Your task to perform on an android device: Go to calendar. Show me events next week Image 0: 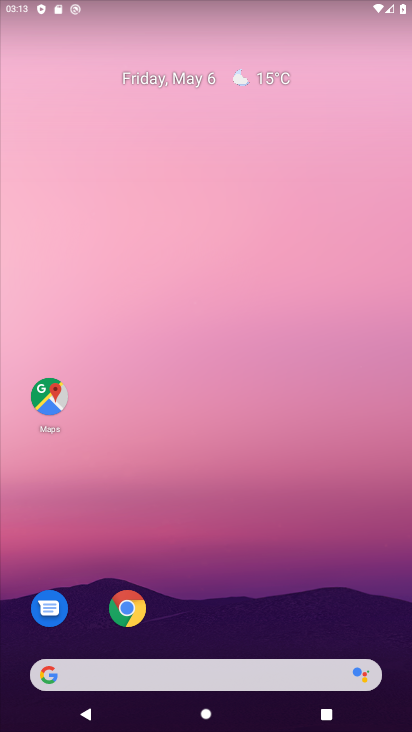
Step 0: drag from (256, 673) to (246, 259)
Your task to perform on an android device: Go to calendar. Show me events next week Image 1: 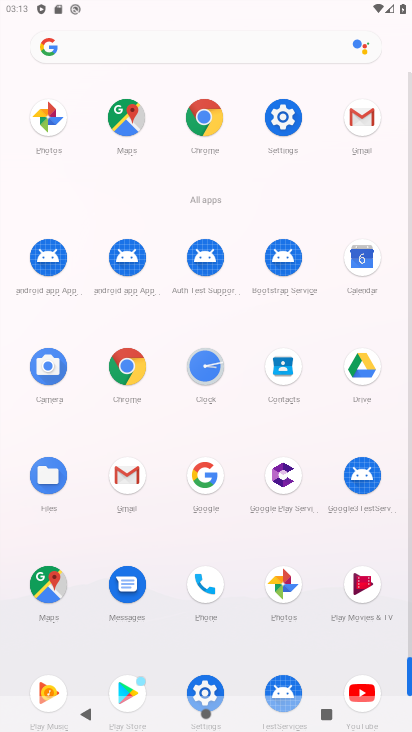
Step 1: click (362, 254)
Your task to perform on an android device: Go to calendar. Show me events next week Image 2: 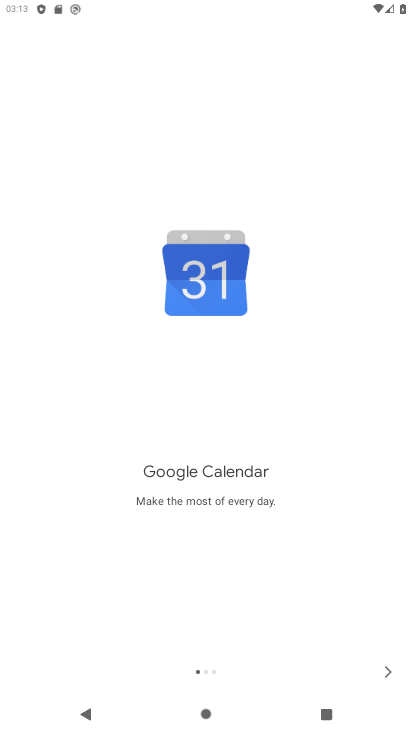
Step 2: click (385, 670)
Your task to perform on an android device: Go to calendar. Show me events next week Image 3: 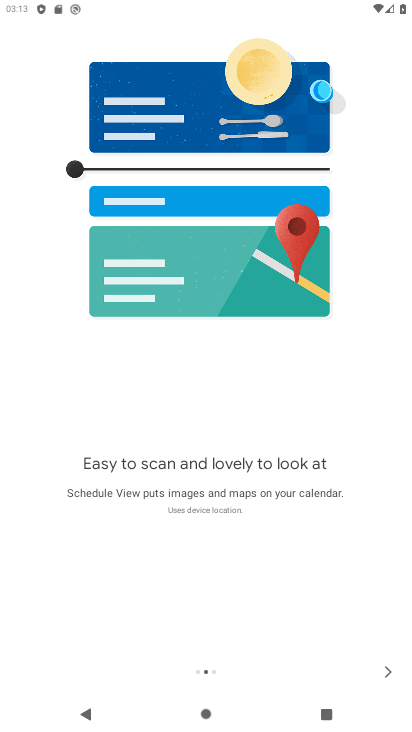
Step 3: click (385, 670)
Your task to perform on an android device: Go to calendar. Show me events next week Image 4: 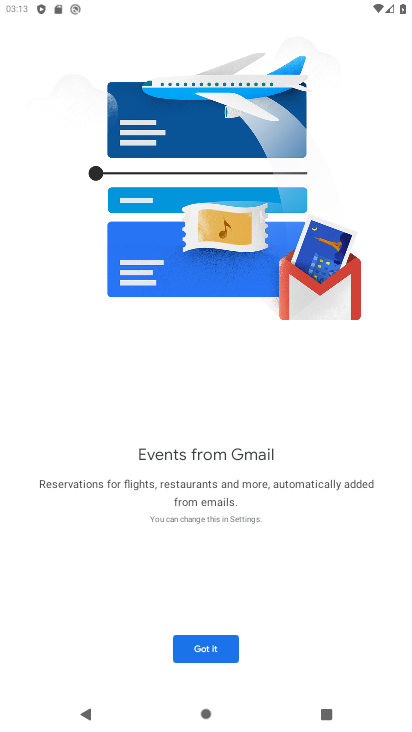
Step 4: click (211, 652)
Your task to perform on an android device: Go to calendar. Show me events next week Image 5: 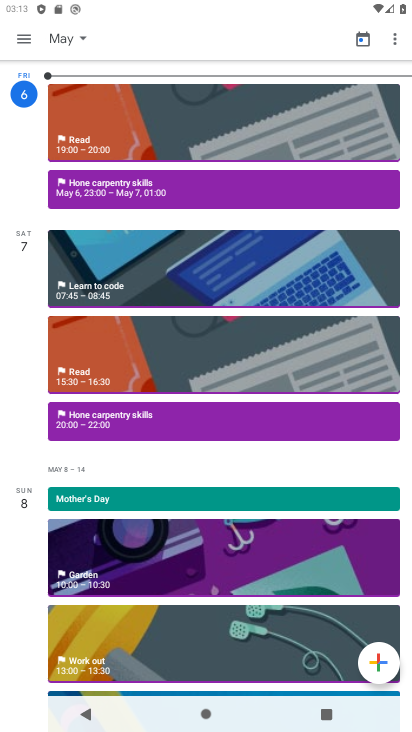
Step 5: click (24, 40)
Your task to perform on an android device: Go to calendar. Show me events next week Image 6: 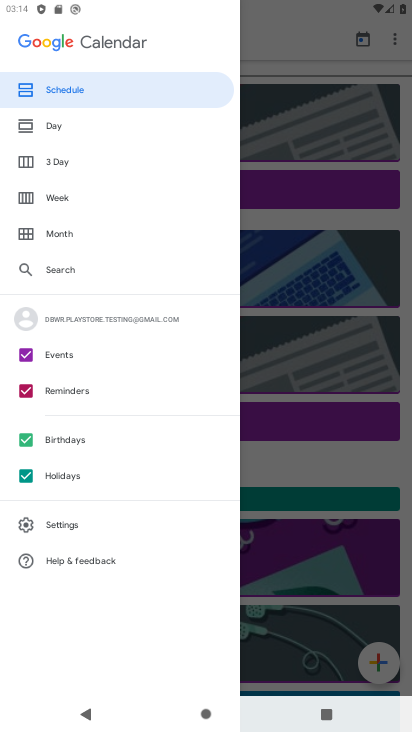
Step 6: click (83, 197)
Your task to perform on an android device: Go to calendar. Show me events next week Image 7: 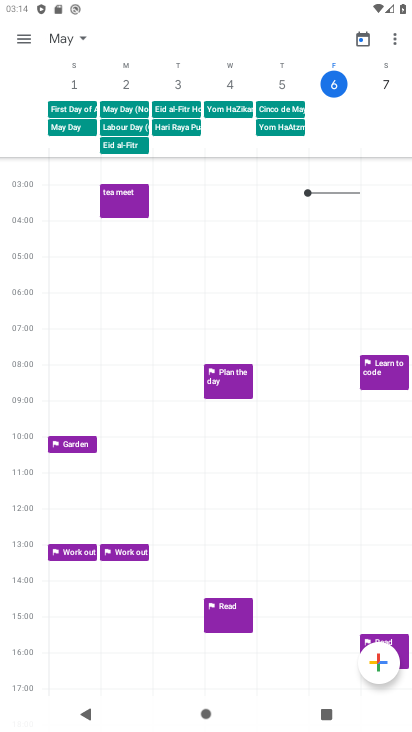
Step 7: task complete